Your task to perform on an android device: open a new tab in the chrome app Image 0: 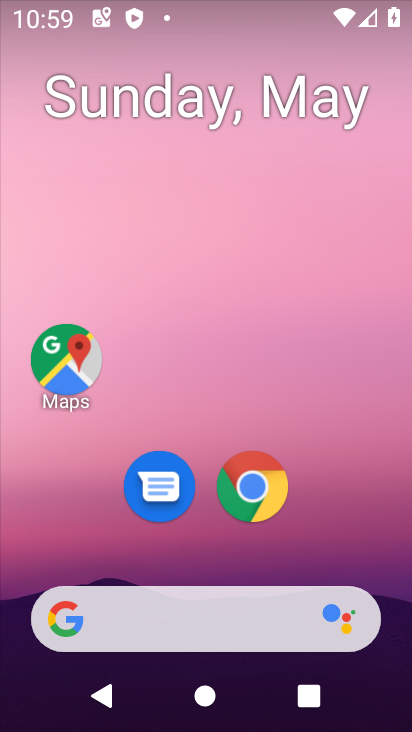
Step 0: click (246, 514)
Your task to perform on an android device: open a new tab in the chrome app Image 1: 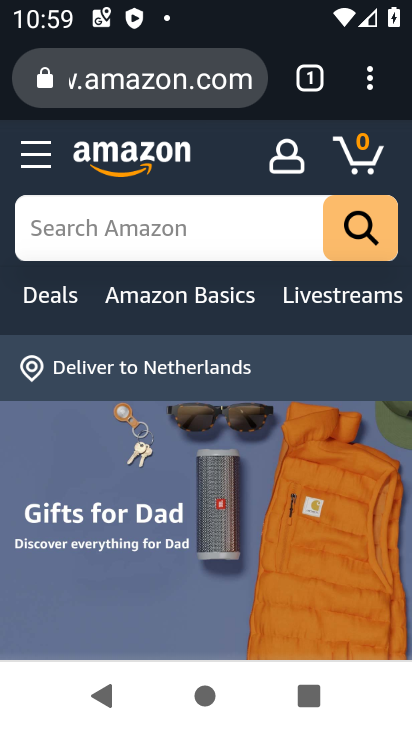
Step 1: click (315, 85)
Your task to perform on an android device: open a new tab in the chrome app Image 2: 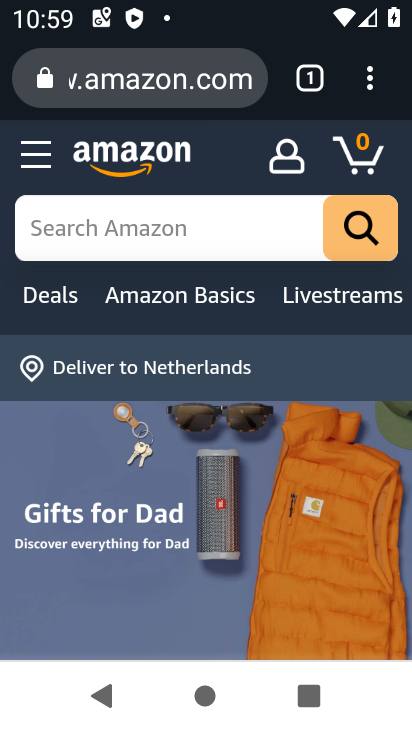
Step 2: click (317, 80)
Your task to perform on an android device: open a new tab in the chrome app Image 3: 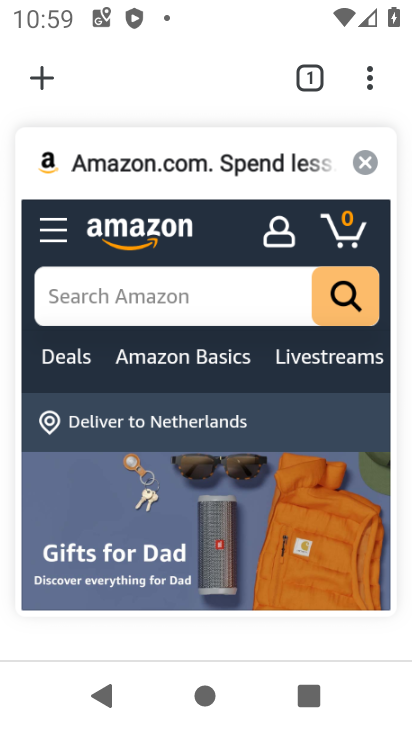
Step 3: click (38, 85)
Your task to perform on an android device: open a new tab in the chrome app Image 4: 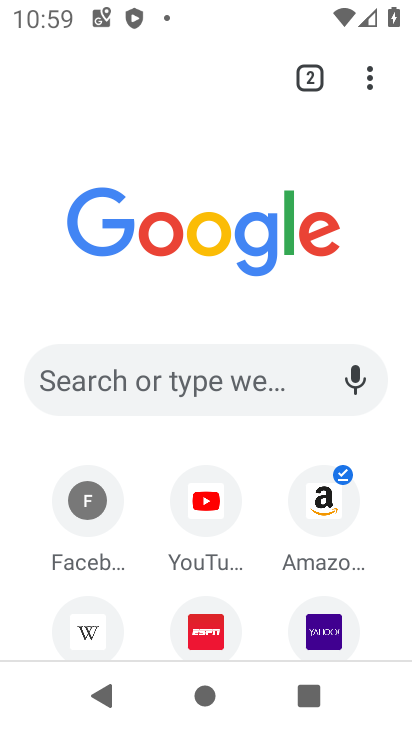
Step 4: task complete